Your task to perform on an android device: see tabs open on other devices in the chrome app Image 0: 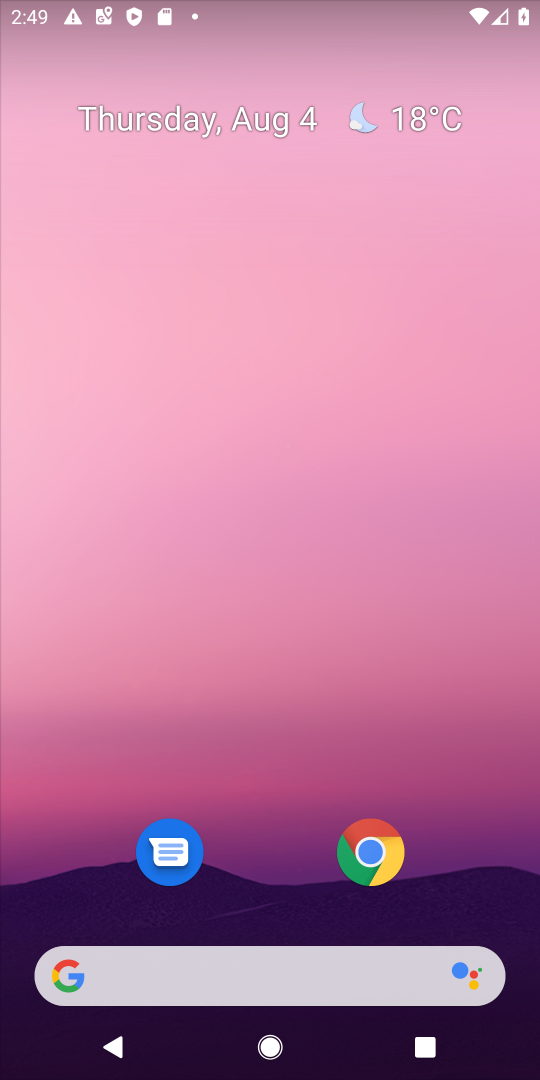
Step 0: click (369, 851)
Your task to perform on an android device: see tabs open on other devices in the chrome app Image 1: 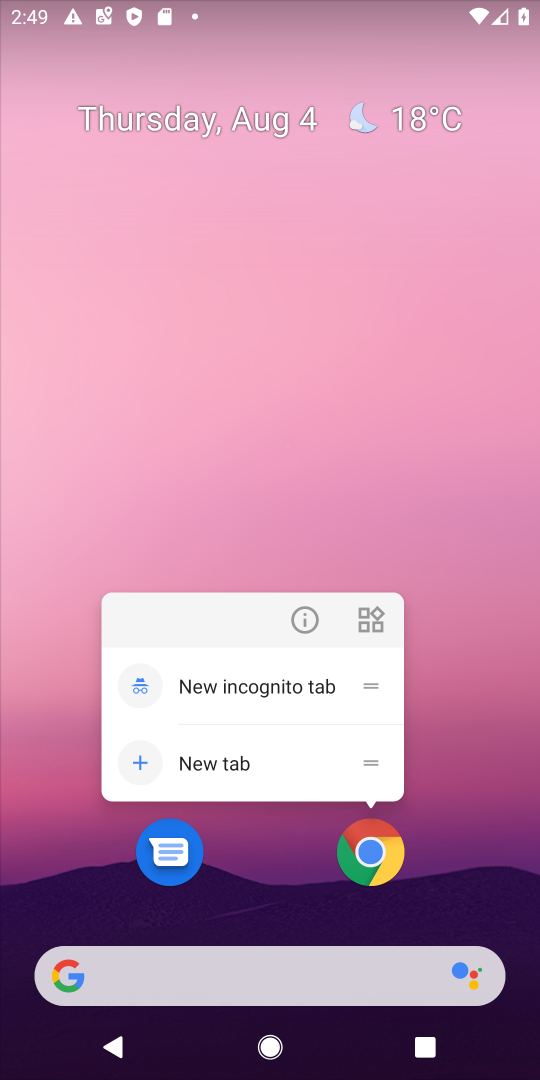
Step 1: click (381, 858)
Your task to perform on an android device: see tabs open on other devices in the chrome app Image 2: 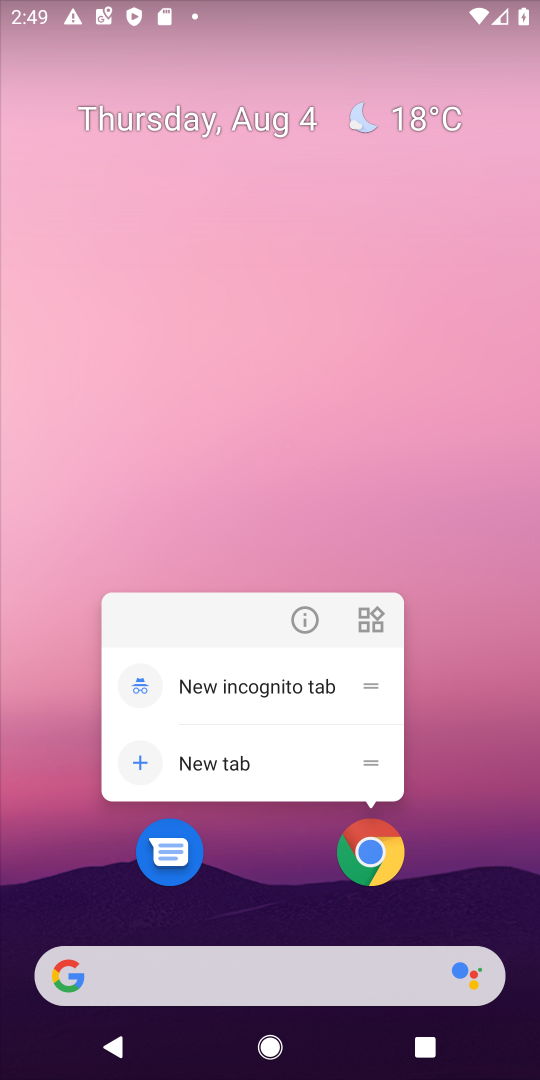
Step 2: click (380, 856)
Your task to perform on an android device: see tabs open on other devices in the chrome app Image 3: 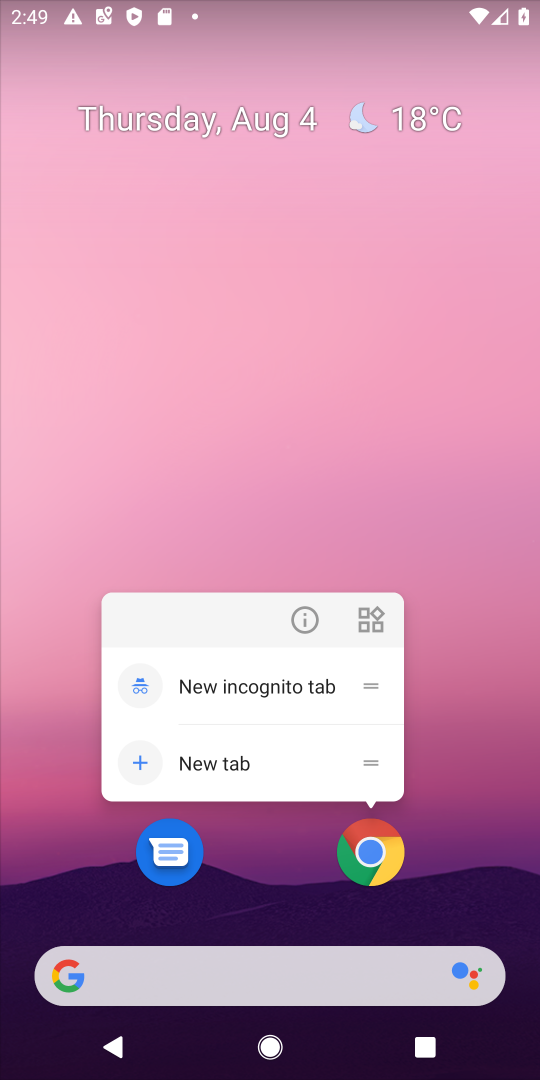
Step 3: click (368, 850)
Your task to perform on an android device: see tabs open on other devices in the chrome app Image 4: 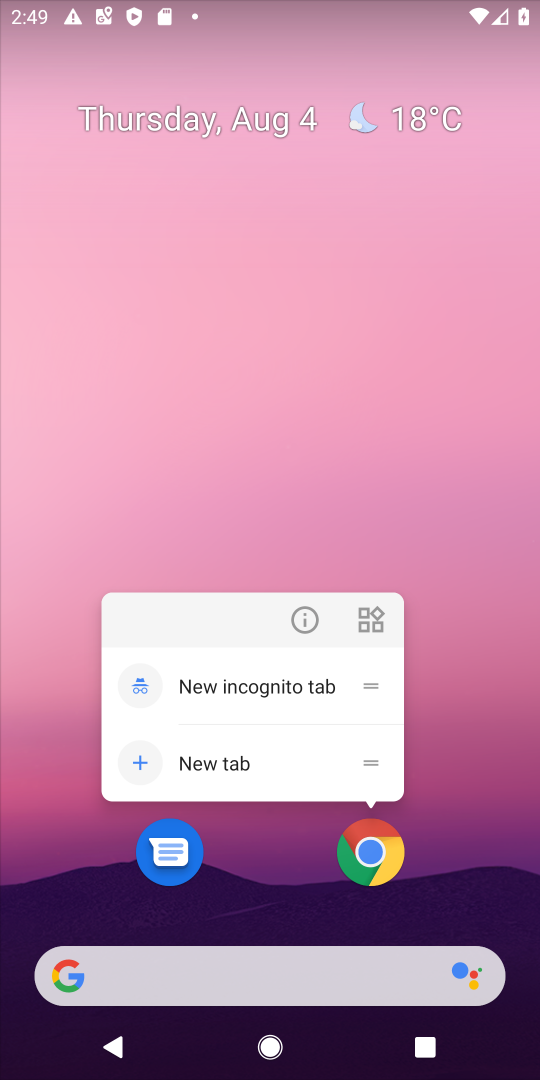
Step 4: click (372, 861)
Your task to perform on an android device: see tabs open on other devices in the chrome app Image 5: 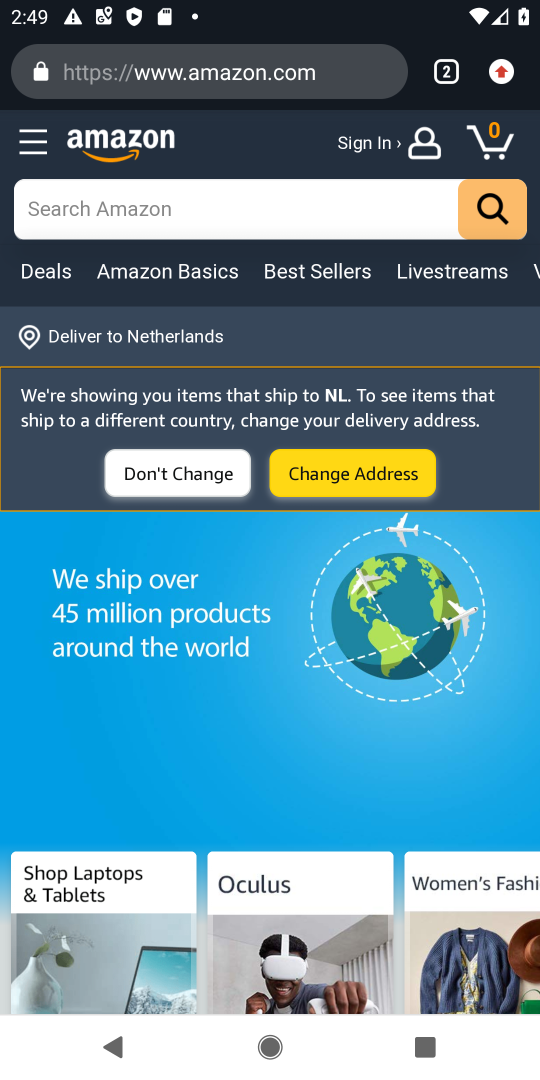
Step 5: task complete